Your task to perform on an android device: turn off smart reply in the gmail app Image 0: 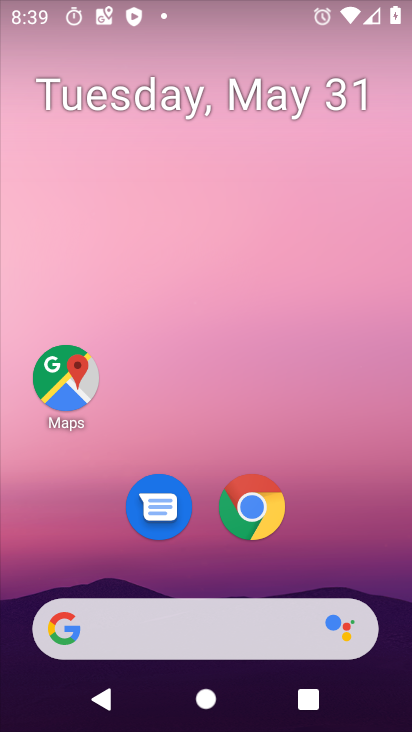
Step 0: drag from (341, 586) to (370, 19)
Your task to perform on an android device: turn off smart reply in the gmail app Image 1: 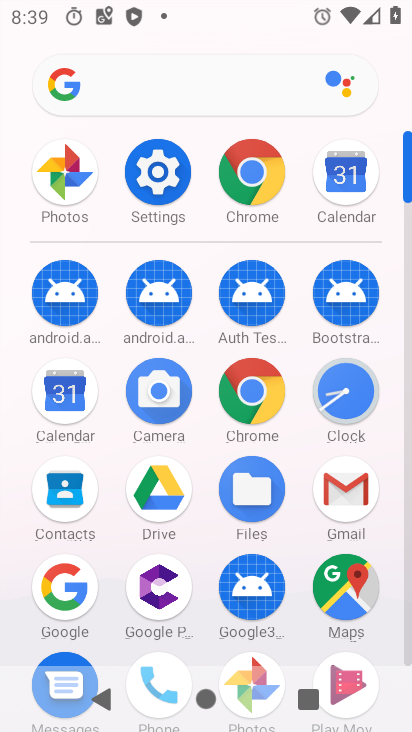
Step 1: click (339, 490)
Your task to perform on an android device: turn off smart reply in the gmail app Image 2: 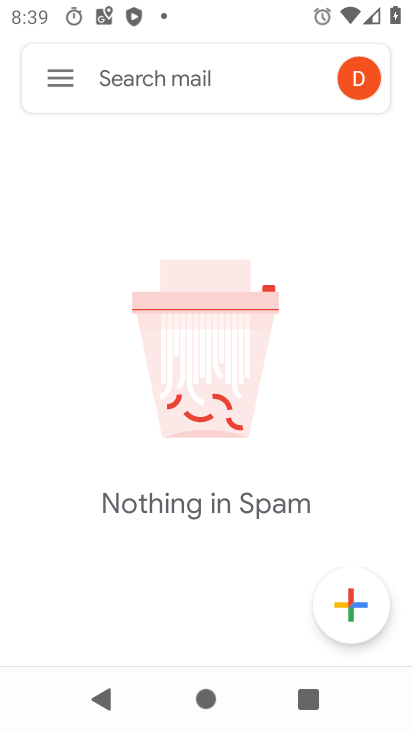
Step 2: click (62, 74)
Your task to perform on an android device: turn off smart reply in the gmail app Image 3: 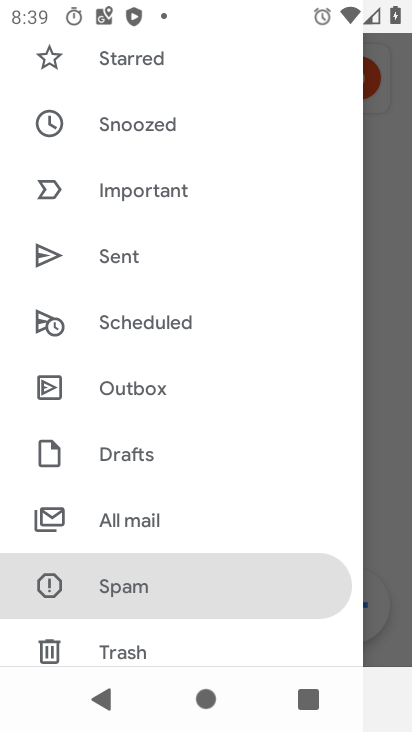
Step 3: drag from (228, 545) to (208, 61)
Your task to perform on an android device: turn off smart reply in the gmail app Image 4: 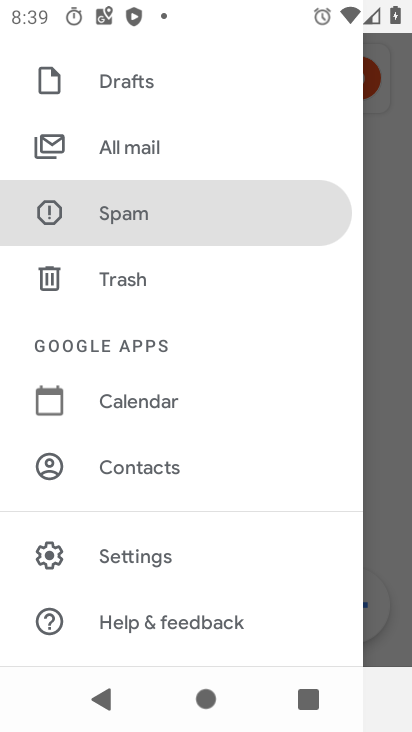
Step 4: click (123, 563)
Your task to perform on an android device: turn off smart reply in the gmail app Image 5: 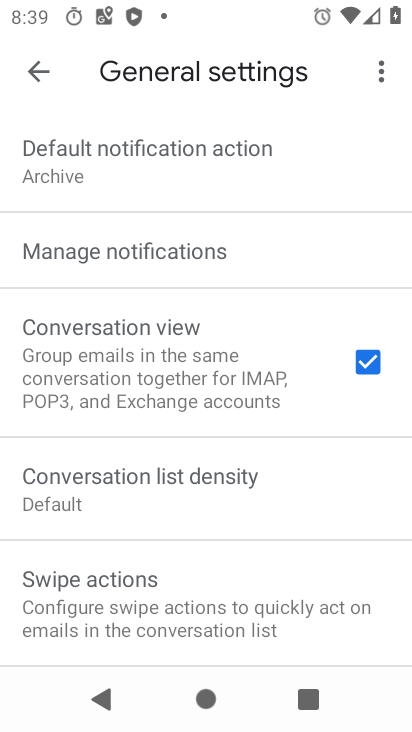
Step 5: click (31, 79)
Your task to perform on an android device: turn off smart reply in the gmail app Image 6: 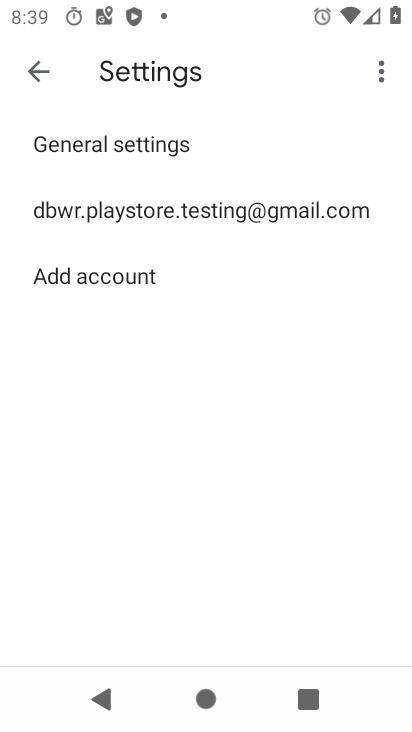
Step 6: click (70, 212)
Your task to perform on an android device: turn off smart reply in the gmail app Image 7: 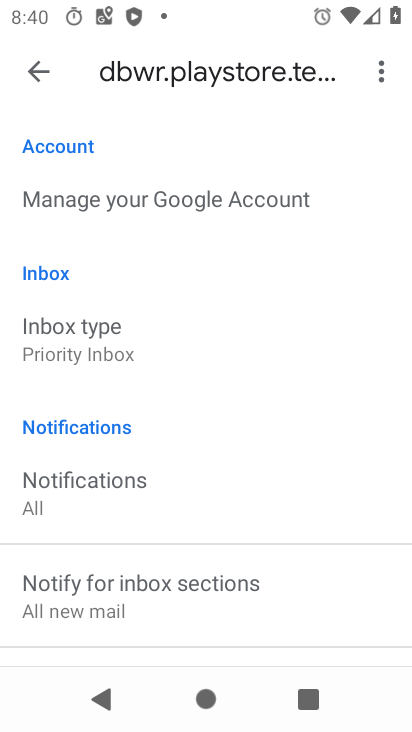
Step 7: drag from (168, 486) to (159, 77)
Your task to perform on an android device: turn off smart reply in the gmail app Image 8: 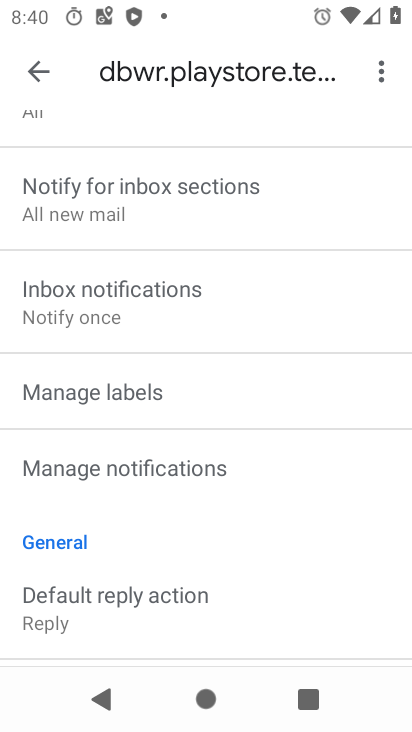
Step 8: drag from (144, 484) to (142, 62)
Your task to perform on an android device: turn off smart reply in the gmail app Image 9: 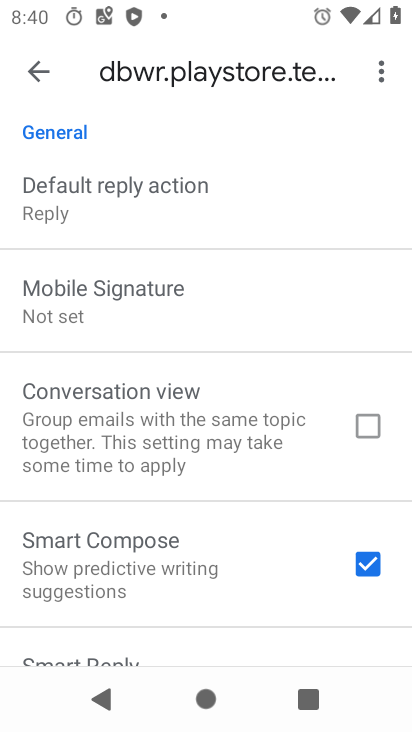
Step 9: drag from (129, 559) to (147, 206)
Your task to perform on an android device: turn off smart reply in the gmail app Image 10: 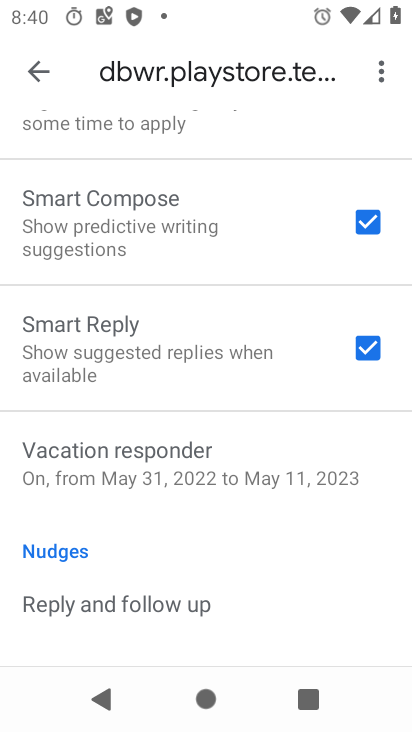
Step 10: click (366, 357)
Your task to perform on an android device: turn off smart reply in the gmail app Image 11: 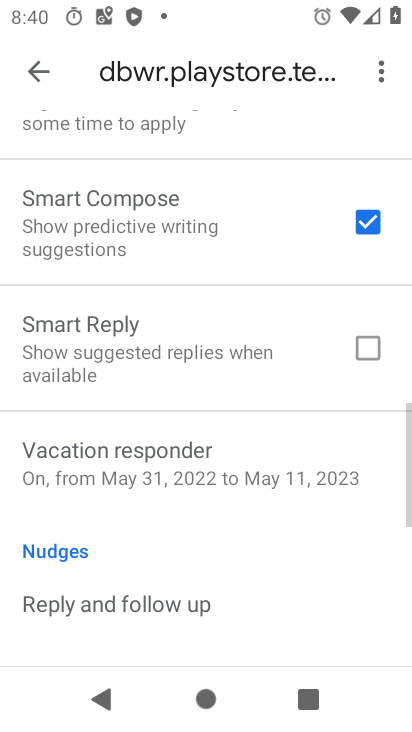
Step 11: task complete